Your task to perform on an android device: check google app version Image 0: 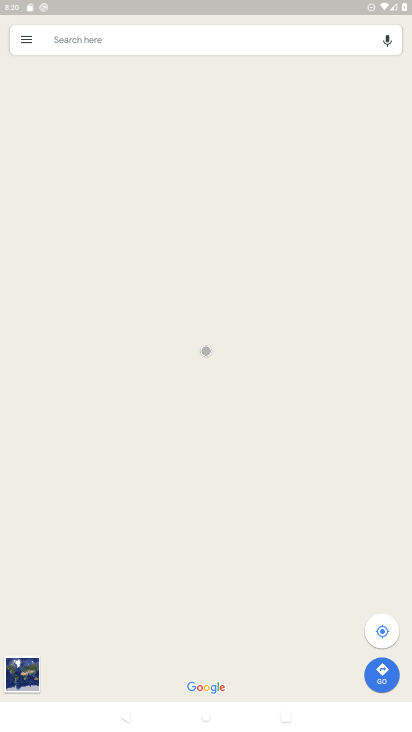
Step 0: press home button
Your task to perform on an android device: check google app version Image 1: 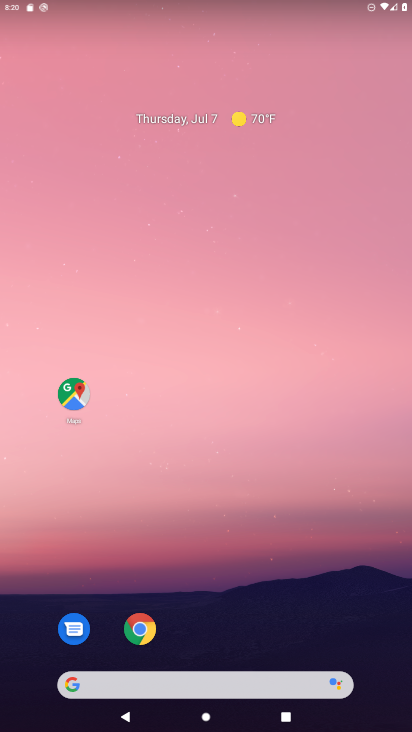
Step 1: drag from (204, 655) to (285, 191)
Your task to perform on an android device: check google app version Image 2: 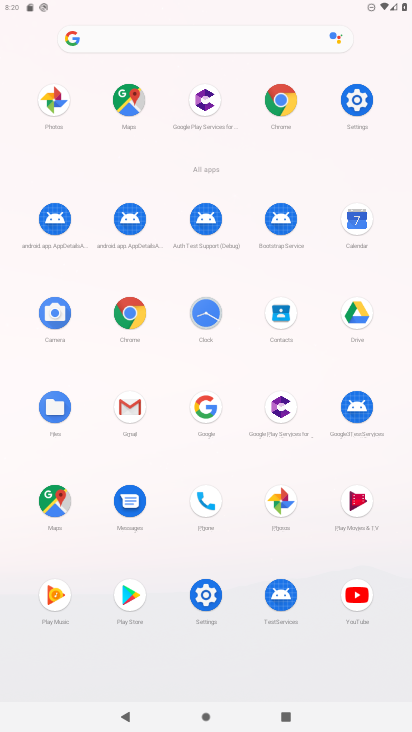
Step 2: click (203, 591)
Your task to perform on an android device: check google app version Image 3: 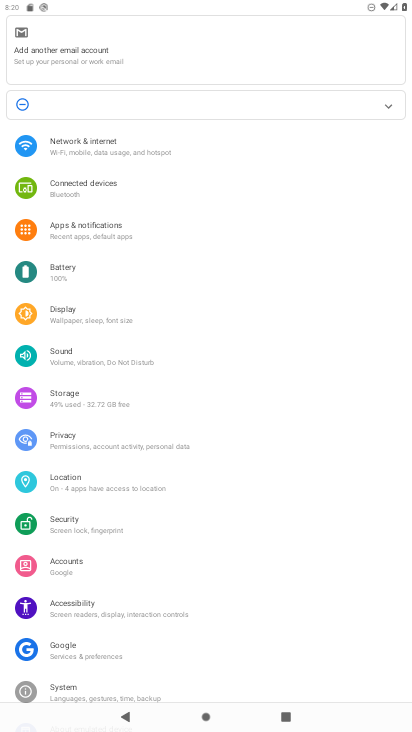
Step 3: click (122, 231)
Your task to perform on an android device: check google app version Image 4: 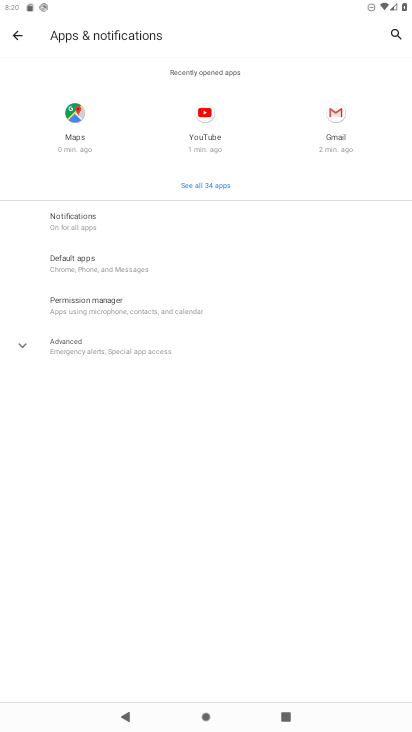
Step 4: click (139, 356)
Your task to perform on an android device: check google app version Image 5: 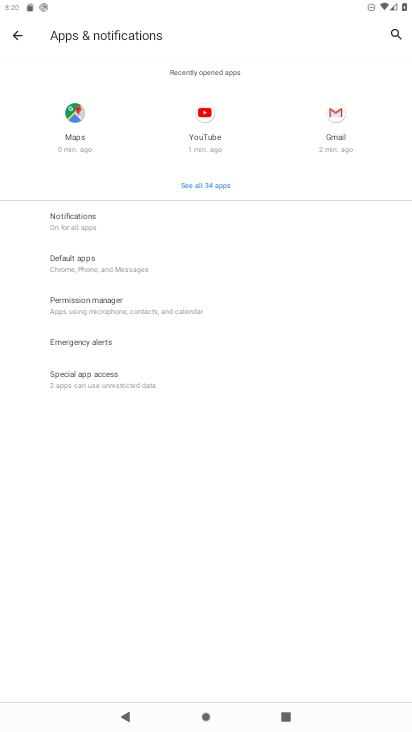
Step 5: click (230, 191)
Your task to perform on an android device: check google app version Image 6: 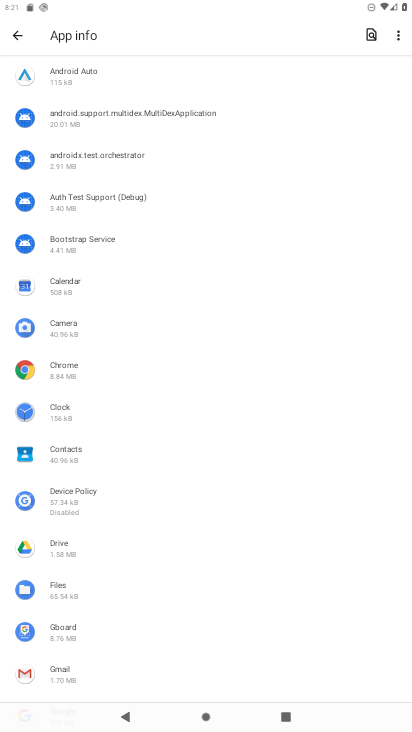
Step 6: drag from (100, 613) to (164, 402)
Your task to perform on an android device: check google app version Image 7: 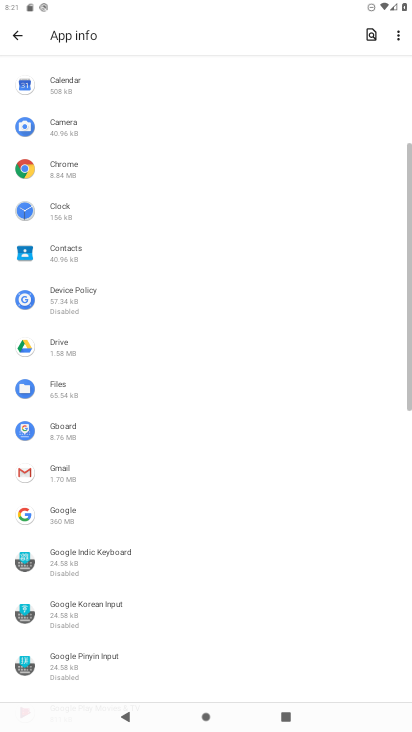
Step 7: click (77, 511)
Your task to perform on an android device: check google app version Image 8: 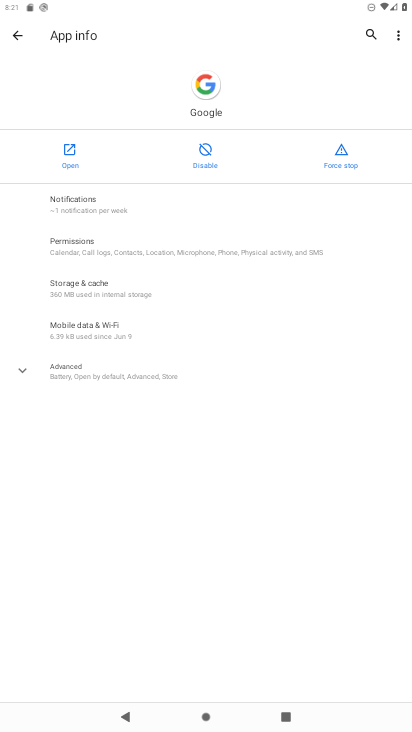
Step 8: click (115, 374)
Your task to perform on an android device: check google app version Image 9: 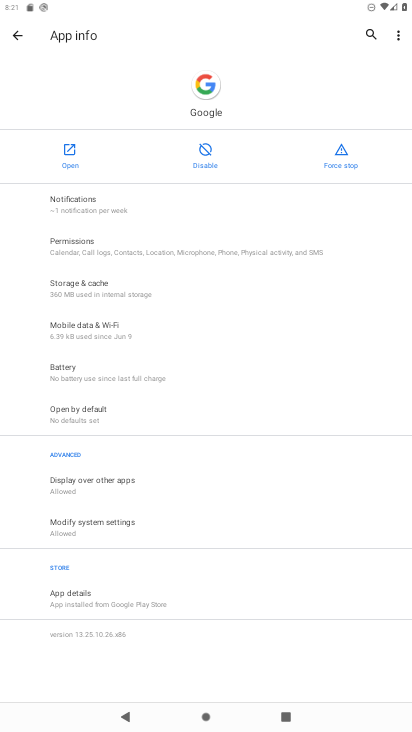
Step 9: task complete